Your task to perform on an android device: What's the weather? Image 0: 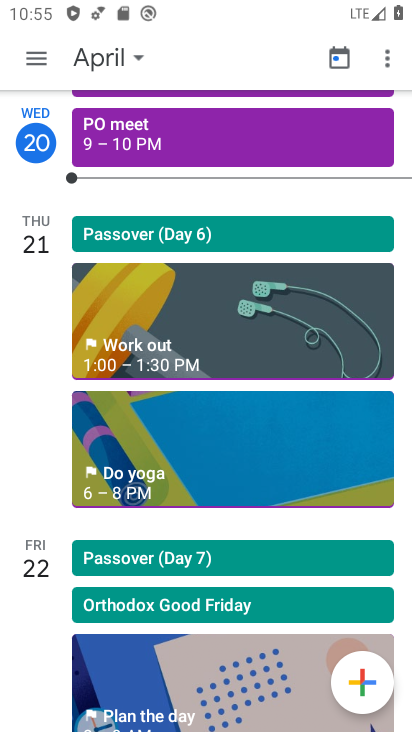
Step 0: press home button
Your task to perform on an android device: What's the weather? Image 1: 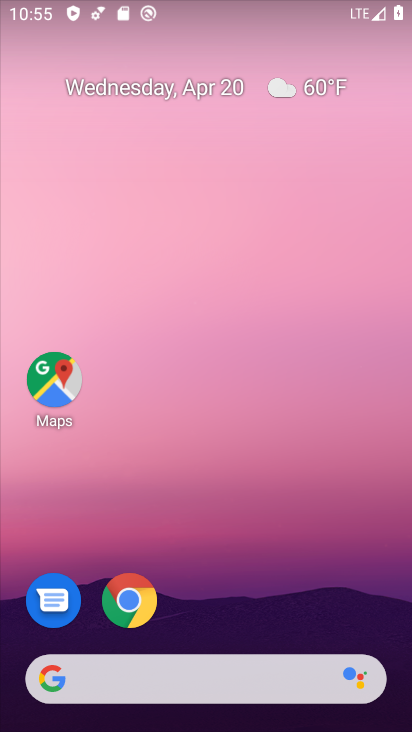
Step 1: drag from (273, 454) to (264, 119)
Your task to perform on an android device: What's the weather? Image 2: 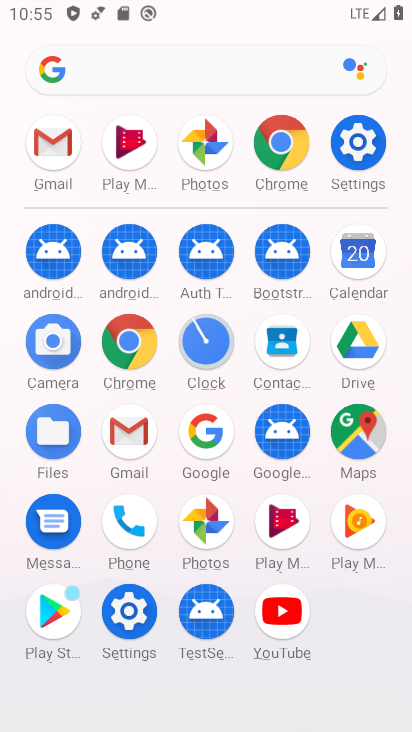
Step 2: click (127, 344)
Your task to perform on an android device: What's the weather? Image 3: 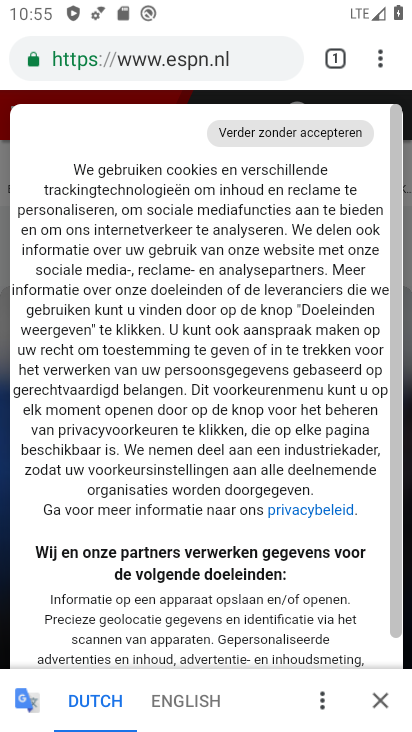
Step 3: click (198, 71)
Your task to perform on an android device: What's the weather? Image 4: 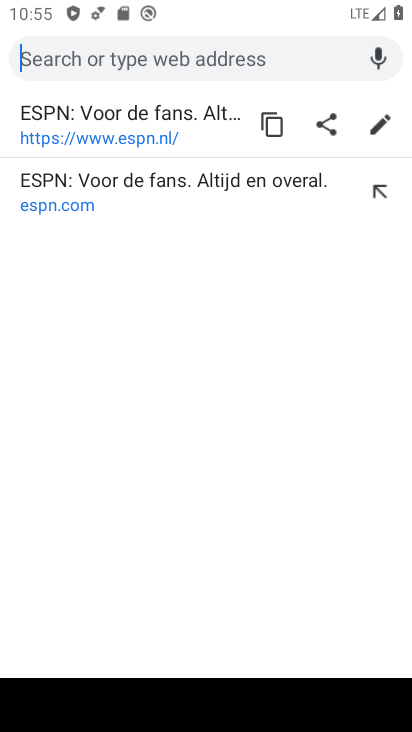
Step 4: type "weather"
Your task to perform on an android device: What's the weather? Image 5: 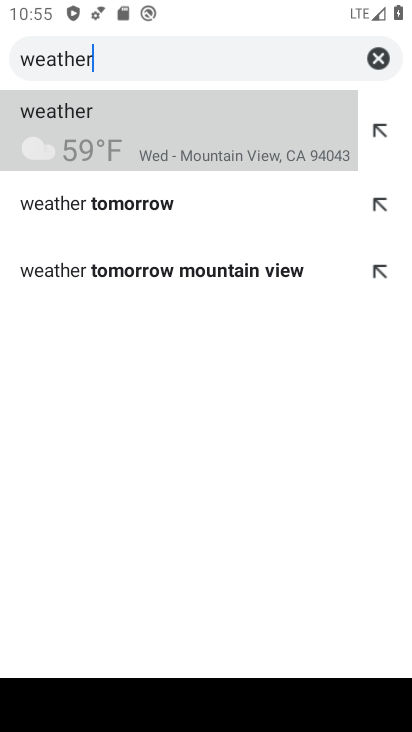
Step 5: click (138, 112)
Your task to perform on an android device: What's the weather? Image 6: 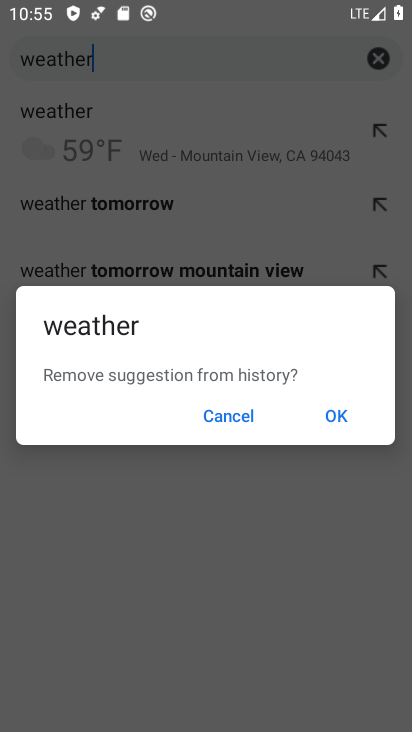
Step 6: click (219, 408)
Your task to perform on an android device: What's the weather? Image 7: 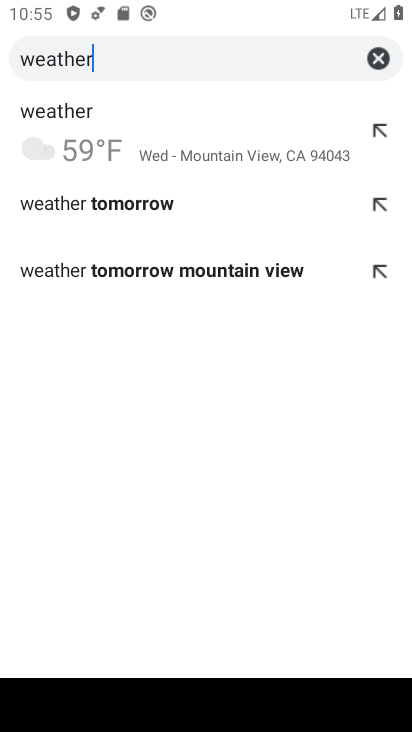
Step 7: press enter
Your task to perform on an android device: What's the weather? Image 8: 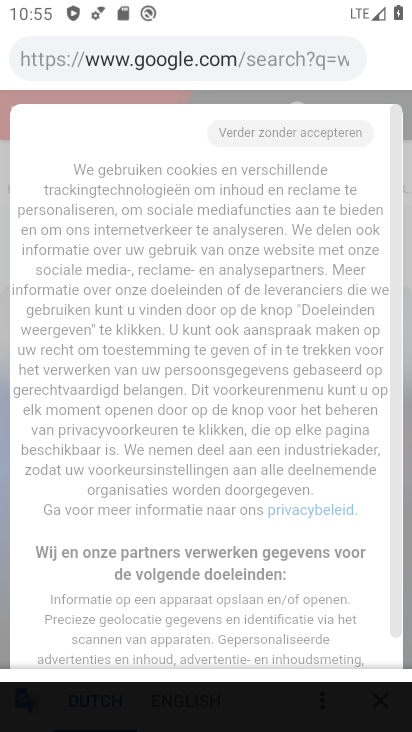
Step 8: press enter
Your task to perform on an android device: What's the weather? Image 9: 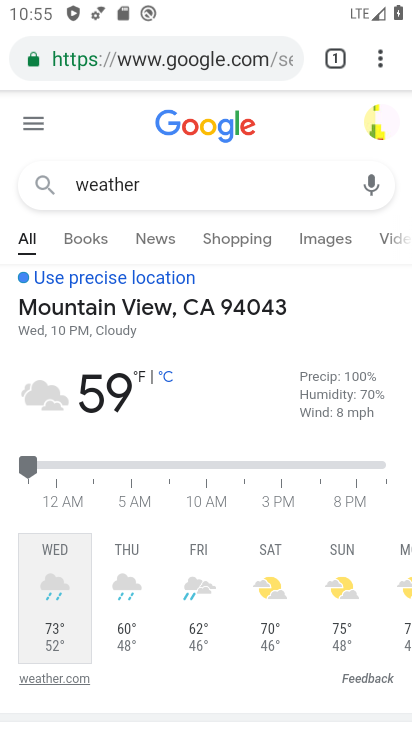
Step 9: task complete